Your task to perform on an android device: search for starred emails in the gmail app Image 0: 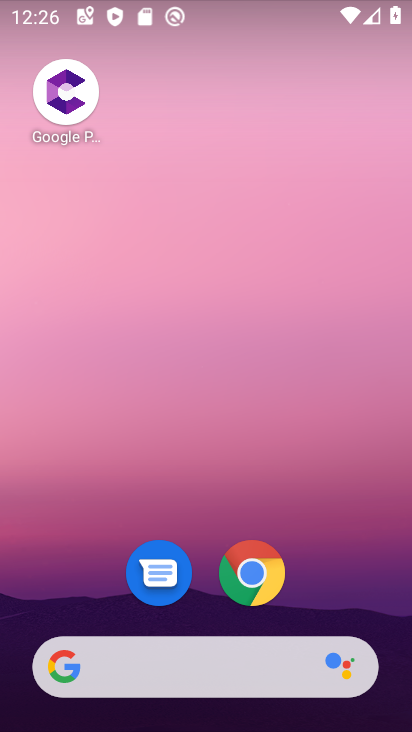
Step 0: drag from (316, 392) to (238, 27)
Your task to perform on an android device: search for starred emails in the gmail app Image 1: 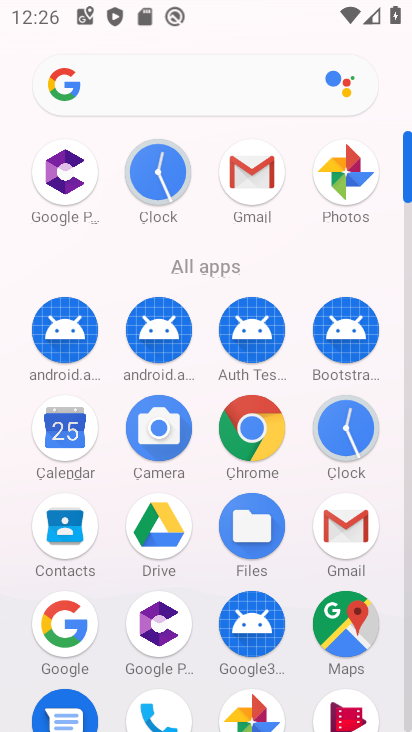
Step 1: click (360, 543)
Your task to perform on an android device: search for starred emails in the gmail app Image 2: 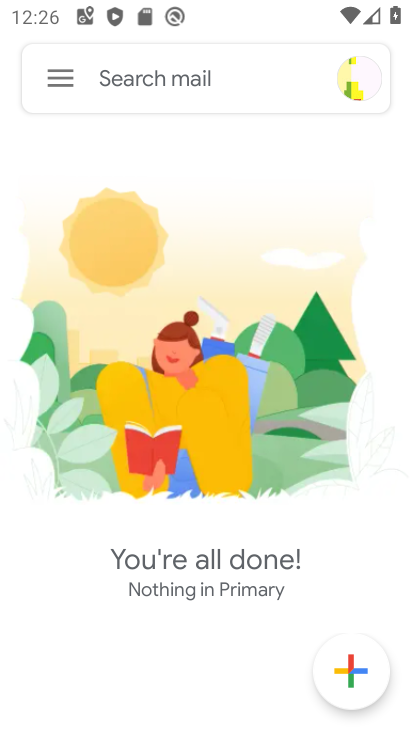
Step 2: click (45, 82)
Your task to perform on an android device: search for starred emails in the gmail app Image 3: 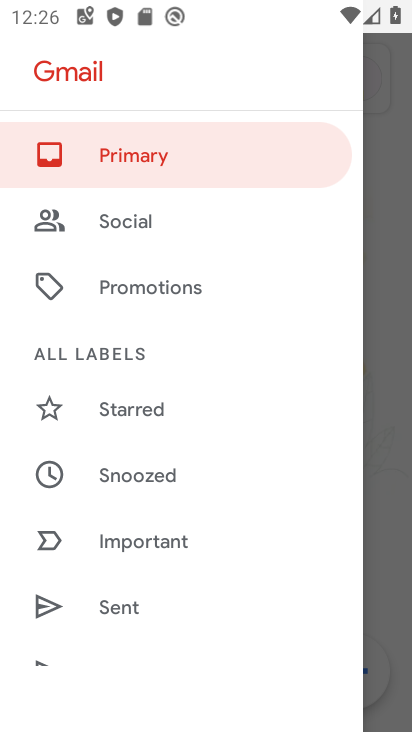
Step 3: click (175, 401)
Your task to perform on an android device: search for starred emails in the gmail app Image 4: 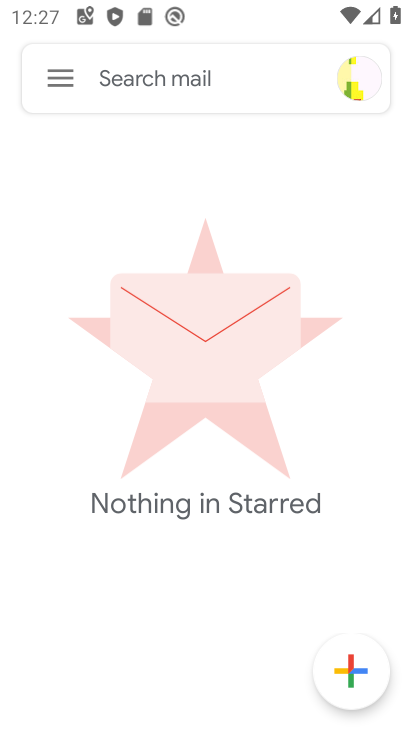
Step 4: task complete